Your task to perform on an android device: turn notification dots off Image 0: 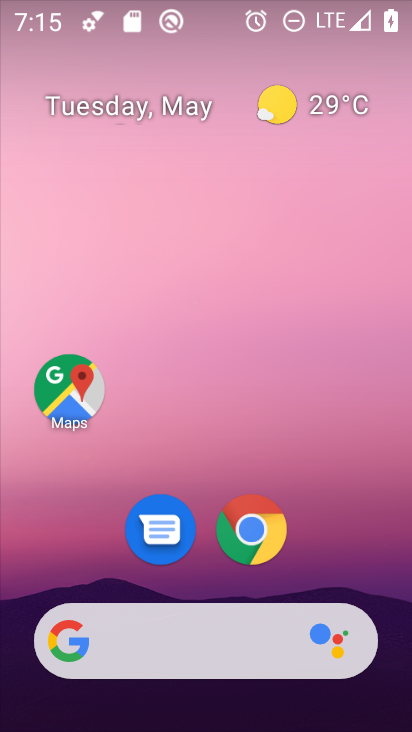
Step 0: drag from (396, 655) to (322, 65)
Your task to perform on an android device: turn notification dots off Image 1: 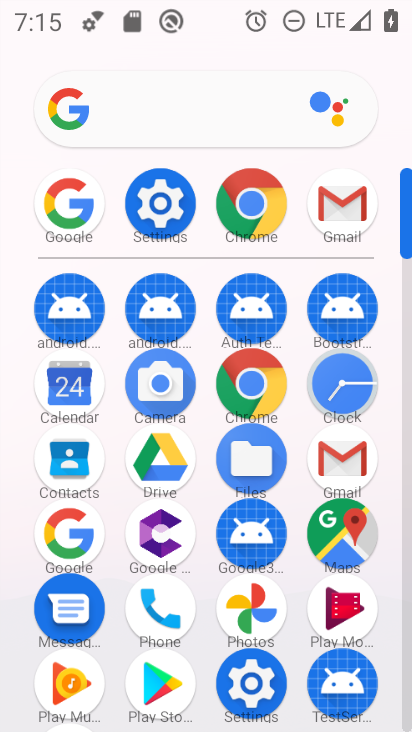
Step 1: click (246, 704)
Your task to perform on an android device: turn notification dots off Image 2: 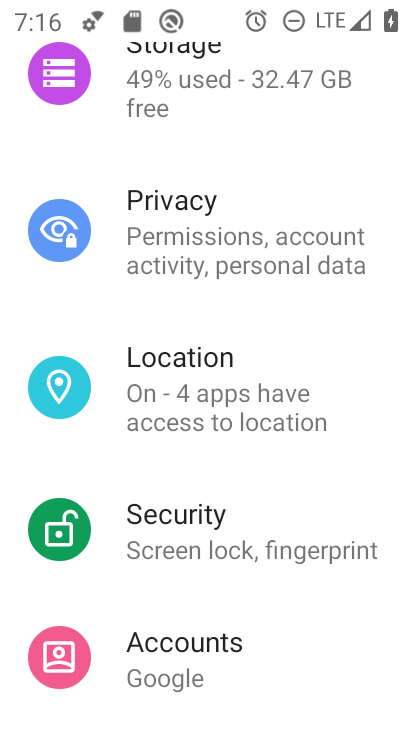
Step 2: drag from (264, 193) to (245, 657)
Your task to perform on an android device: turn notification dots off Image 3: 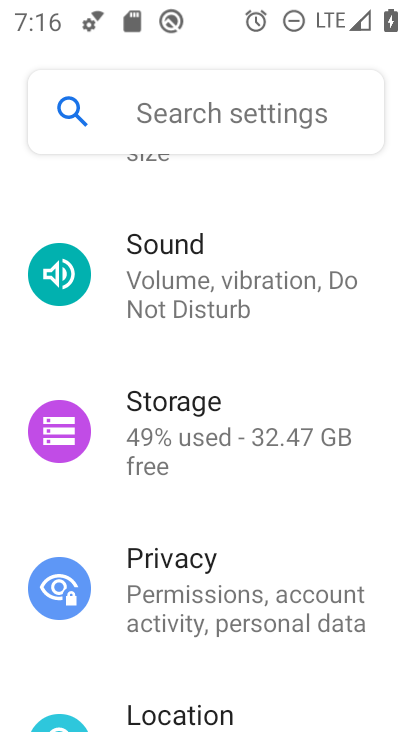
Step 3: drag from (223, 291) to (248, 652)
Your task to perform on an android device: turn notification dots off Image 4: 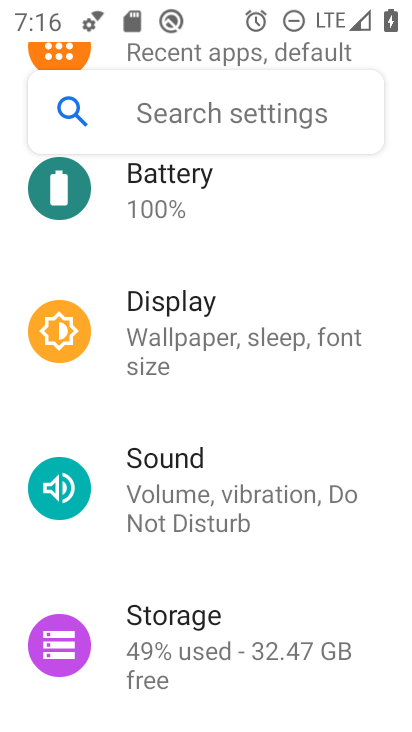
Step 4: drag from (248, 230) to (244, 626)
Your task to perform on an android device: turn notification dots off Image 5: 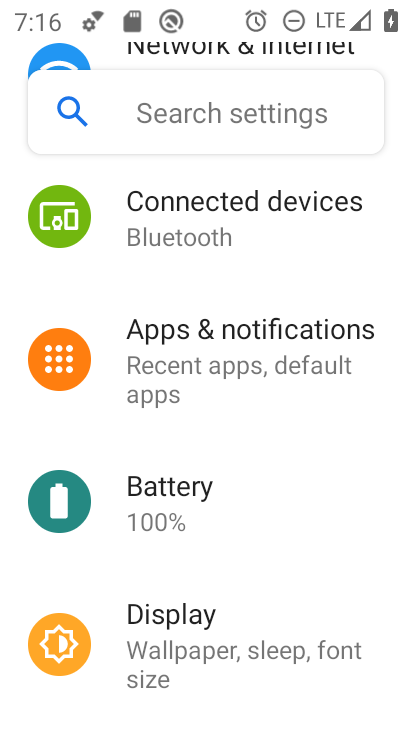
Step 5: click (281, 335)
Your task to perform on an android device: turn notification dots off Image 6: 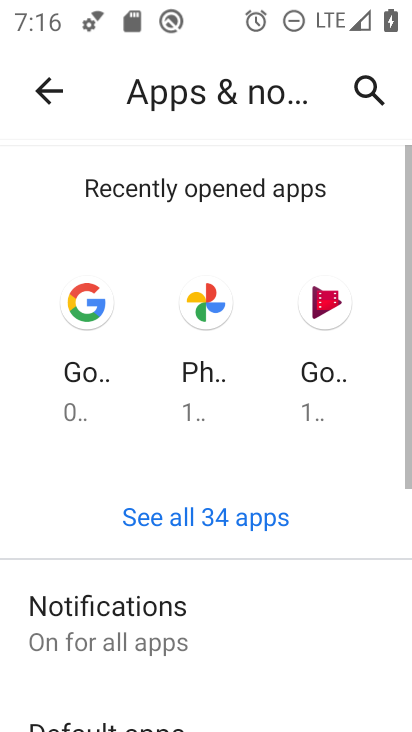
Step 6: click (194, 606)
Your task to perform on an android device: turn notification dots off Image 7: 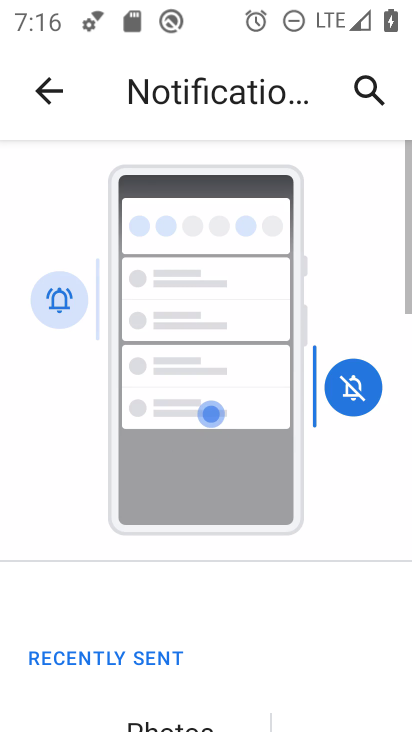
Step 7: drag from (228, 689) to (210, 89)
Your task to perform on an android device: turn notification dots off Image 8: 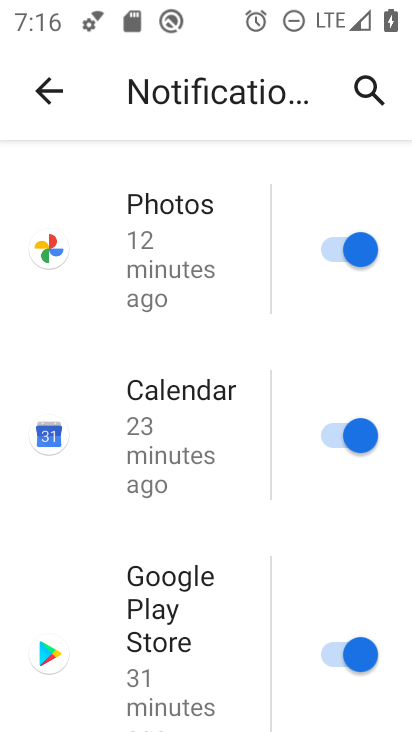
Step 8: drag from (189, 645) to (187, 80)
Your task to perform on an android device: turn notification dots off Image 9: 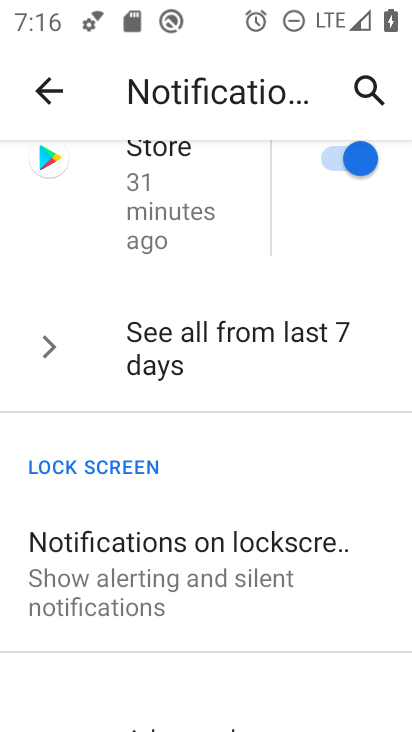
Step 9: drag from (162, 567) to (158, 157)
Your task to perform on an android device: turn notification dots off Image 10: 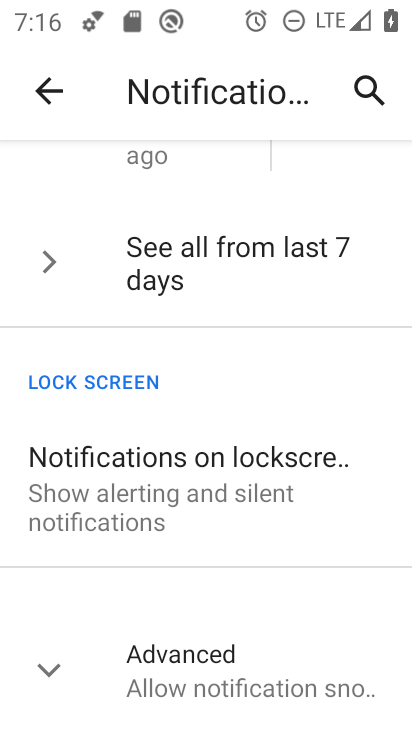
Step 10: click (84, 671)
Your task to perform on an android device: turn notification dots off Image 11: 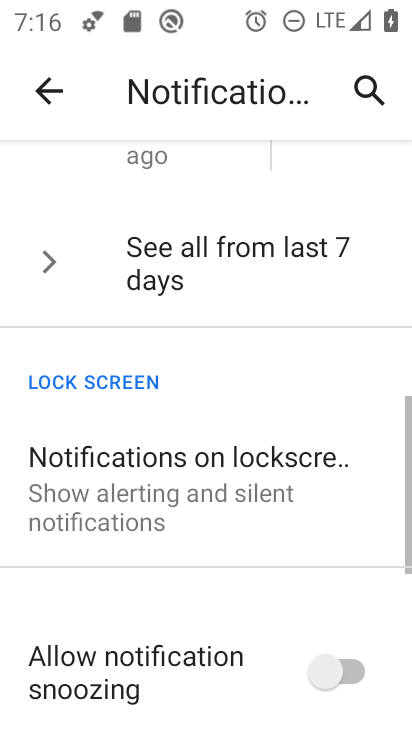
Step 11: task complete